Your task to perform on an android device: install app "Instagram" Image 0: 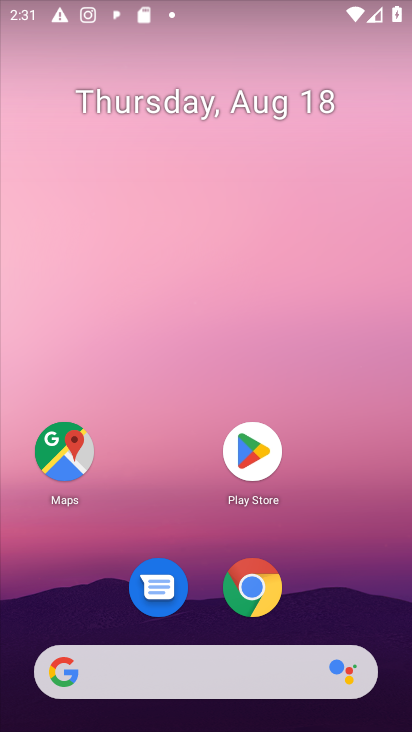
Step 0: press home button
Your task to perform on an android device: install app "Instagram" Image 1: 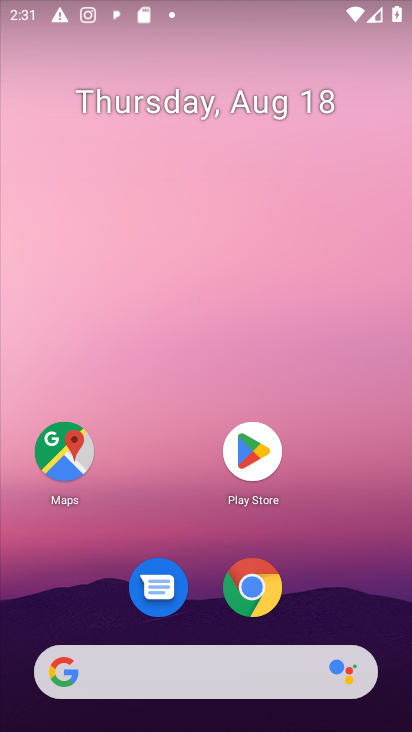
Step 1: click (243, 460)
Your task to perform on an android device: install app "Instagram" Image 2: 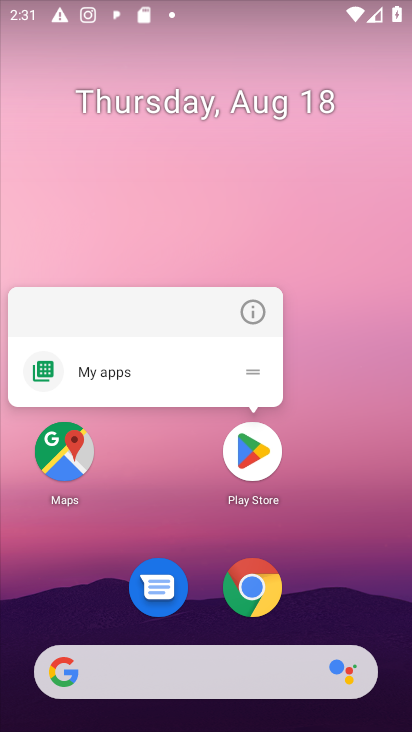
Step 2: click (243, 461)
Your task to perform on an android device: install app "Instagram" Image 3: 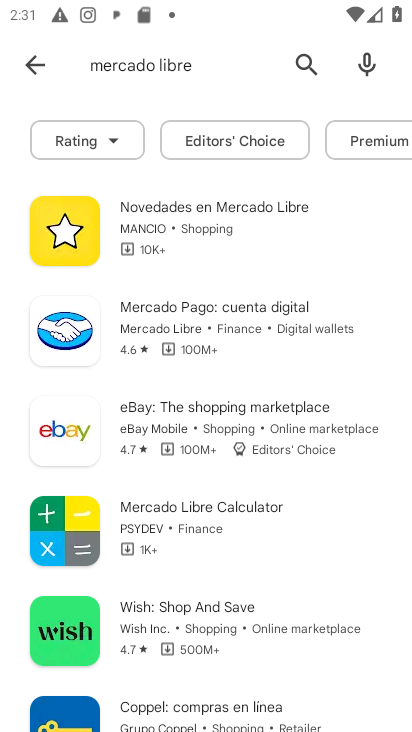
Step 3: click (307, 62)
Your task to perform on an android device: install app "Instagram" Image 4: 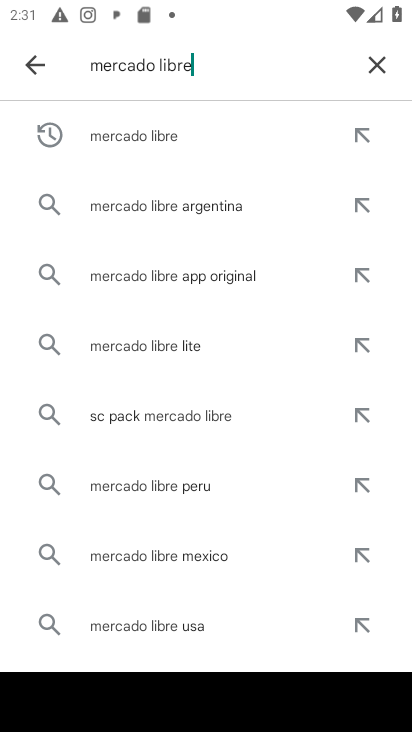
Step 4: click (373, 62)
Your task to perform on an android device: install app "Instagram" Image 5: 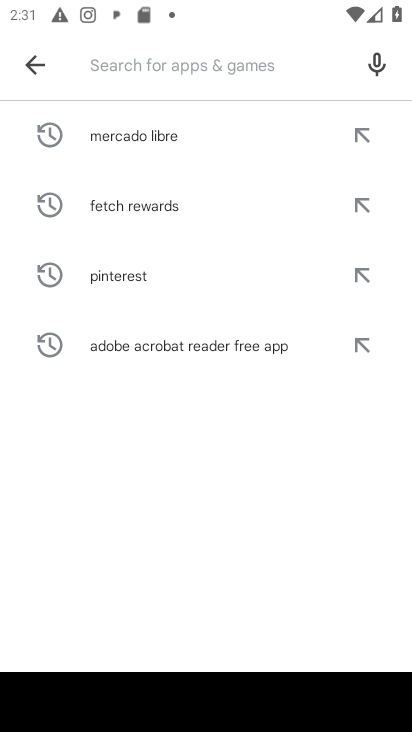
Step 5: type "Instagram"
Your task to perform on an android device: install app "Instagram" Image 6: 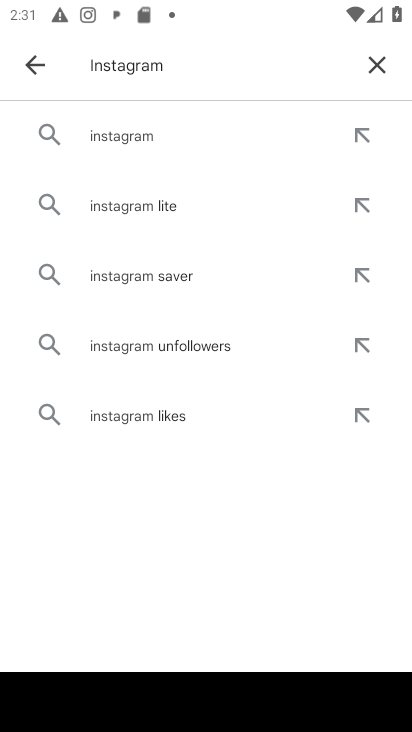
Step 6: click (118, 135)
Your task to perform on an android device: install app "Instagram" Image 7: 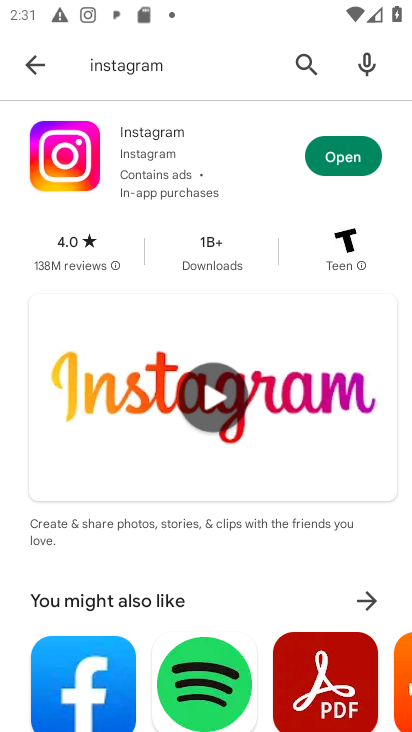
Step 7: task complete